Your task to perform on an android device: star an email in the gmail app Image 0: 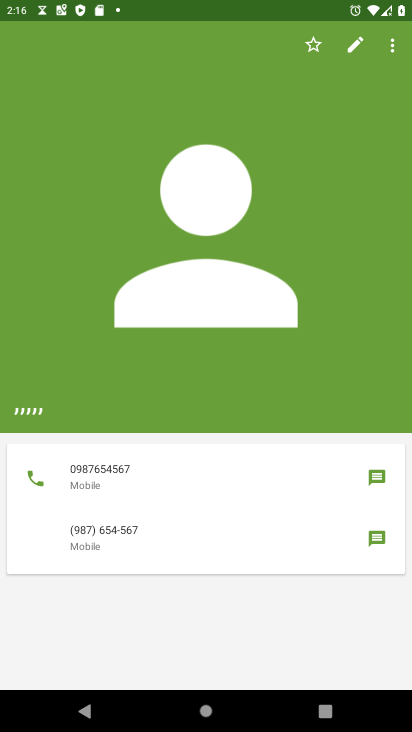
Step 0: press home button
Your task to perform on an android device: star an email in the gmail app Image 1: 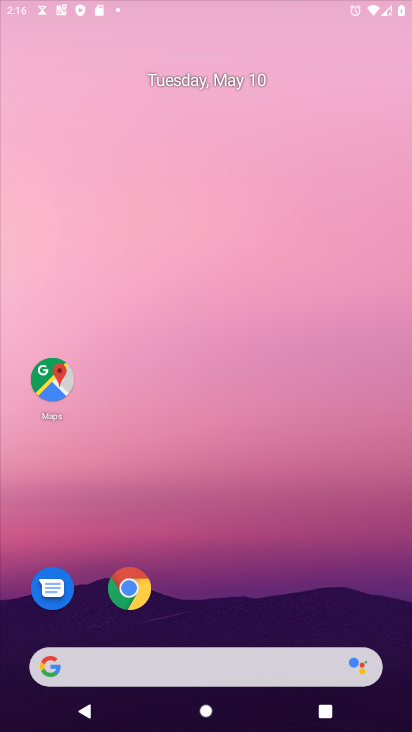
Step 1: drag from (242, 594) to (224, 202)
Your task to perform on an android device: star an email in the gmail app Image 2: 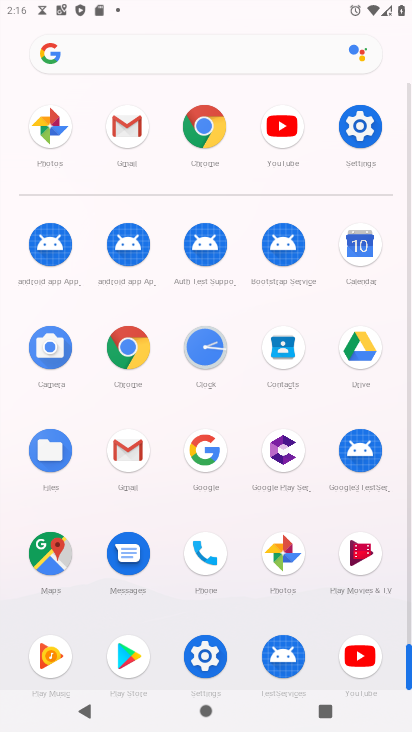
Step 2: click (122, 451)
Your task to perform on an android device: star an email in the gmail app Image 3: 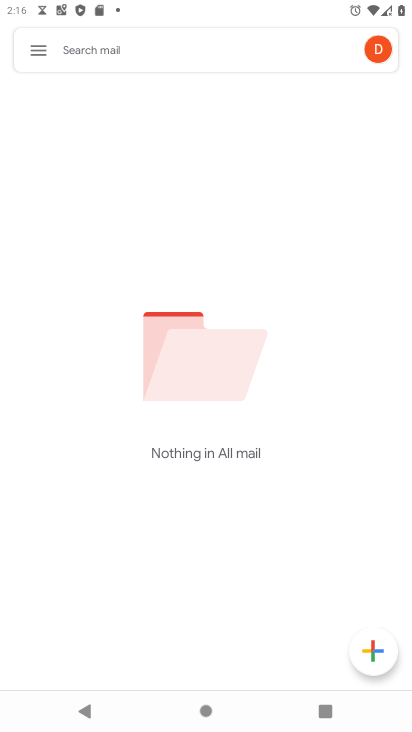
Step 3: click (43, 43)
Your task to perform on an android device: star an email in the gmail app Image 4: 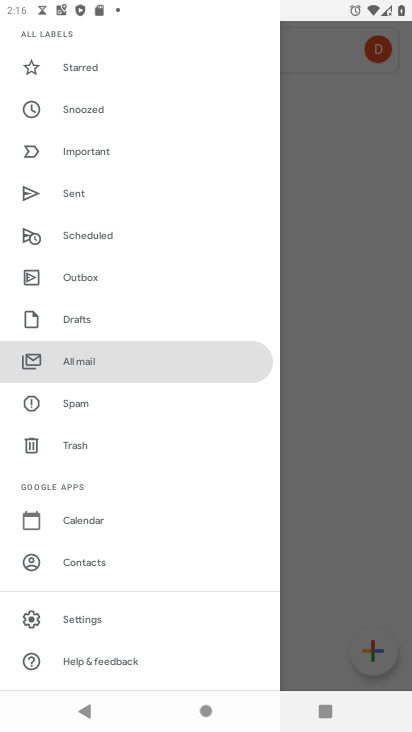
Step 4: click (96, 66)
Your task to perform on an android device: star an email in the gmail app Image 5: 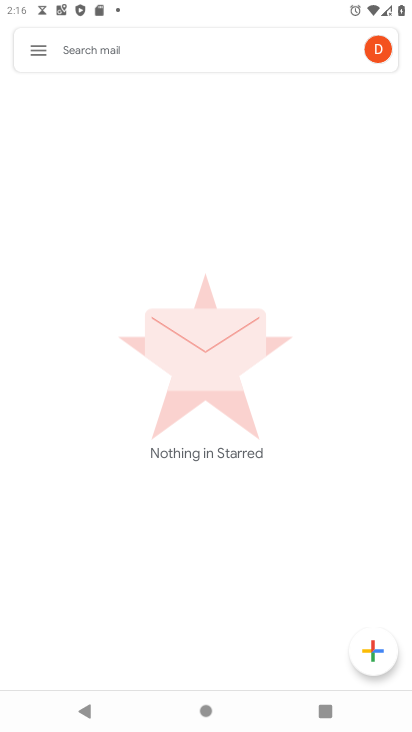
Step 5: task complete